Your task to perform on an android device: snooze an email in the gmail app Image 0: 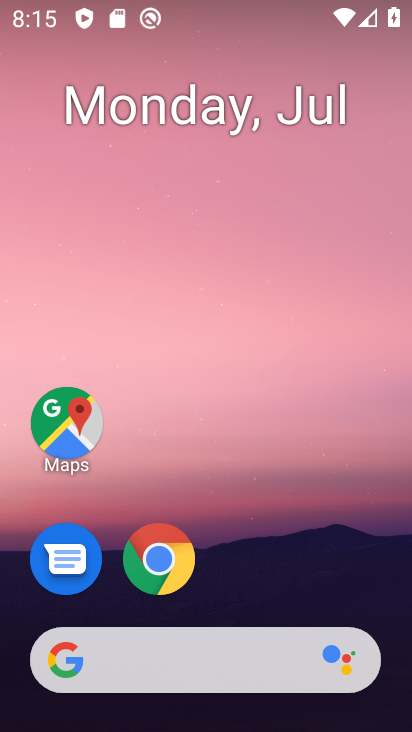
Step 0: drag from (311, 574) to (245, 78)
Your task to perform on an android device: snooze an email in the gmail app Image 1: 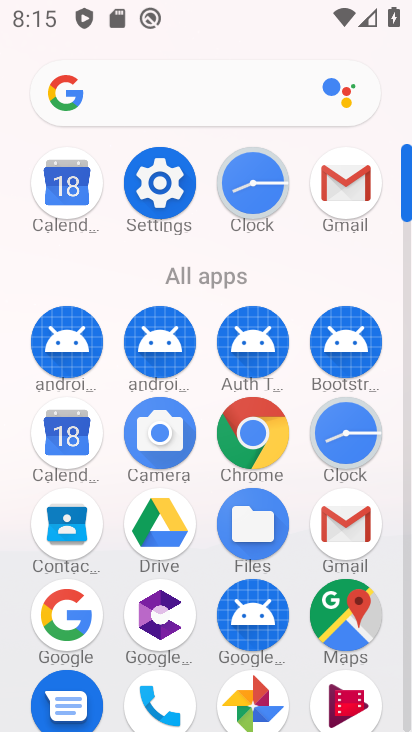
Step 1: click (345, 171)
Your task to perform on an android device: snooze an email in the gmail app Image 2: 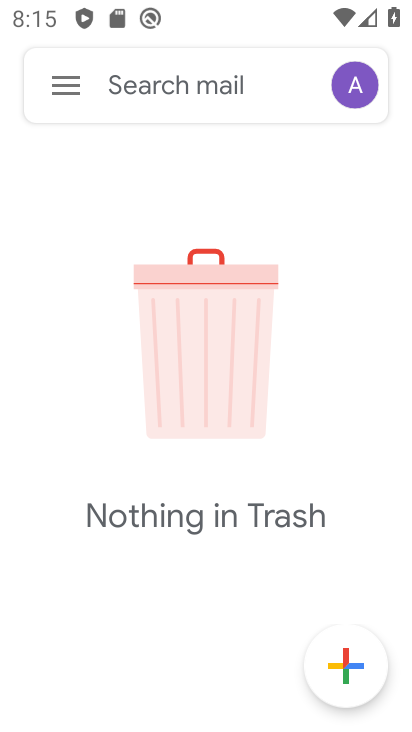
Step 2: click (66, 74)
Your task to perform on an android device: snooze an email in the gmail app Image 3: 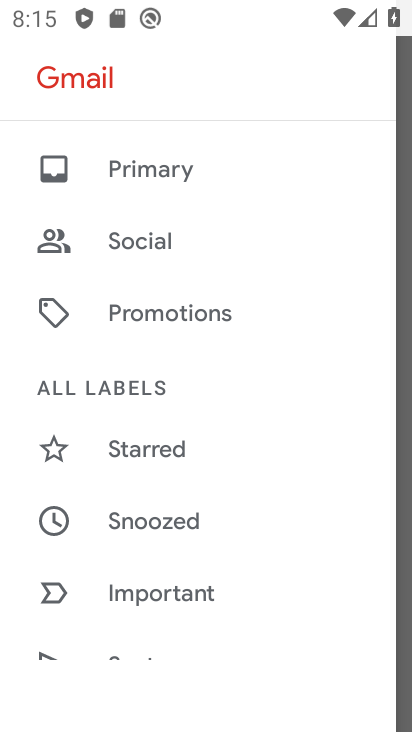
Step 3: drag from (198, 515) to (184, 23)
Your task to perform on an android device: snooze an email in the gmail app Image 4: 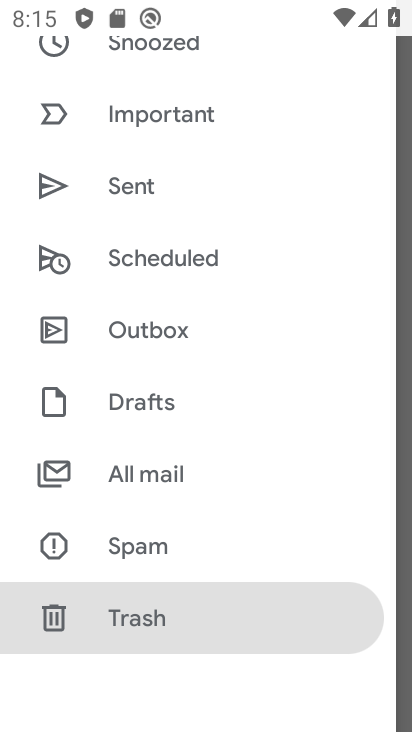
Step 4: click (258, 467)
Your task to perform on an android device: snooze an email in the gmail app Image 5: 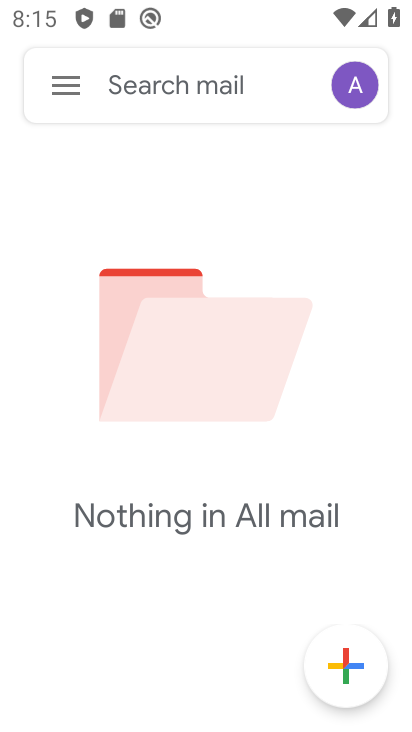
Step 5: task complete